Your task to perform on an android device: change text size in settings app Image 0: 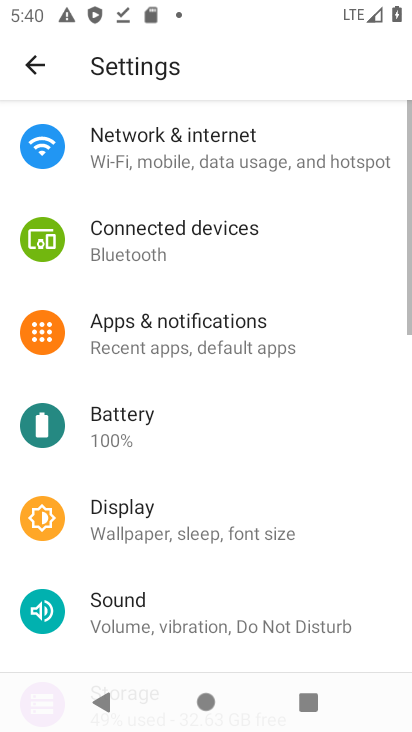
Step 0: drag from (209, 598) to (204, 230)
Your task to perform on an android device: change text size in settings app Image 1: 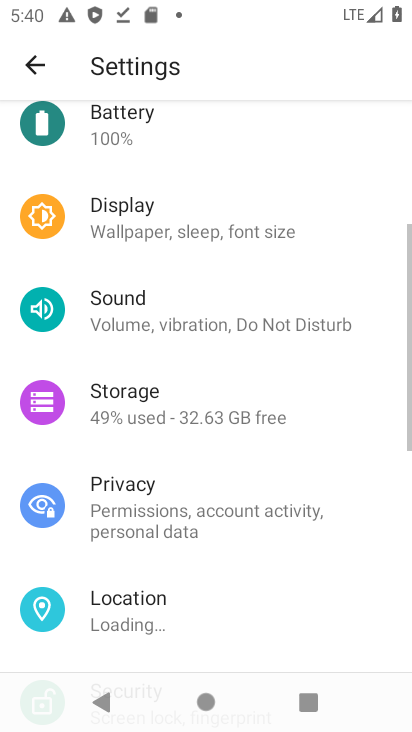
Step 1: drag from (252, 237) to (296, 728)
Your task to perform on an android device: change text size in settings app Image 2: 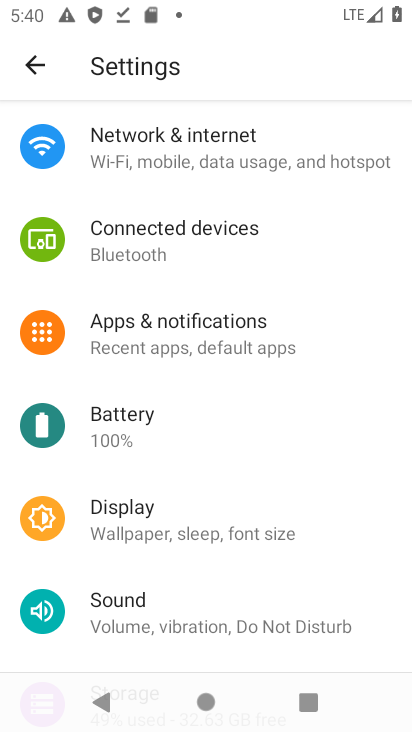
Step 2: click (164, 519)
Your task to perform on an android device: change text size in settings app Image 3: 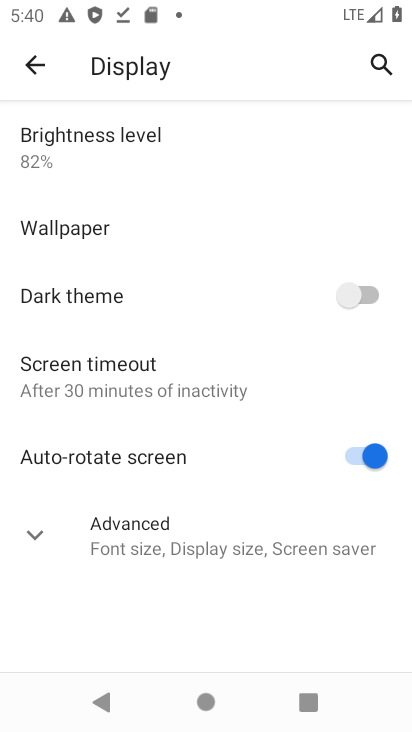
Step 3: drag from (102, 540) to (115, 324)
Your task to perform on an android device: change text size in settings app Image 4: 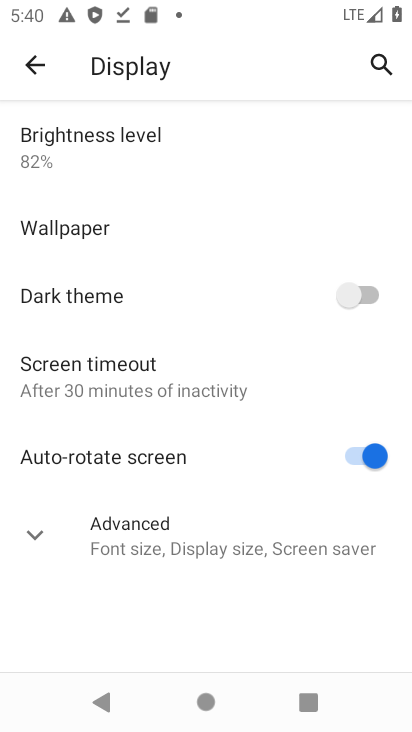
Step 4: click (151, 546)
Your task to perform on an android device: change text size in settings app Image 5: 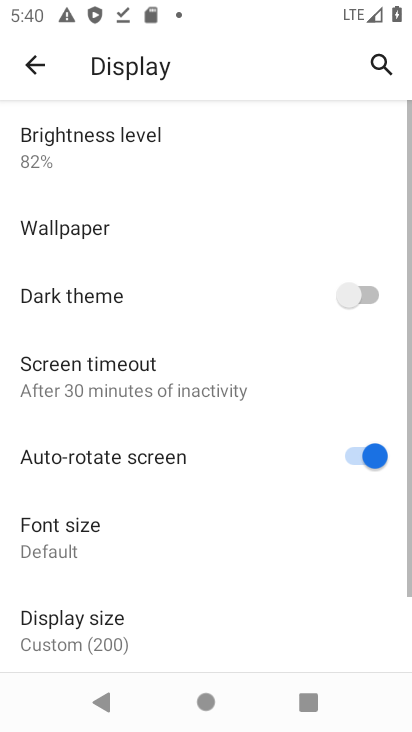
Step 5: drag from (146, 508) to (193, 235)
Your task to perform on an android device: change text size in settings app Image 6: 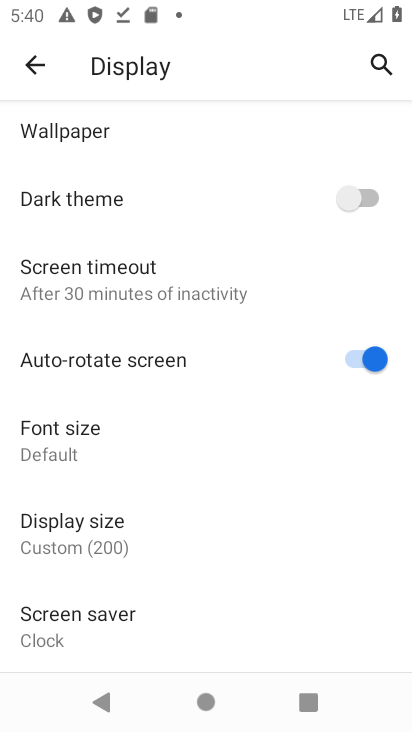
Step 6: click (63, 428)
Your task to perform on an android device: change text size in settings app Image 7: 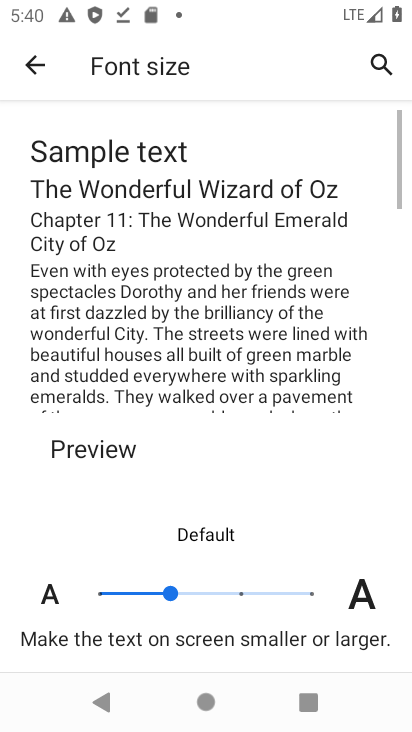
Step 7: drag from (167, 502) to (218, 195)
Your task to perform on an android device: change text size in settings app Image 8: 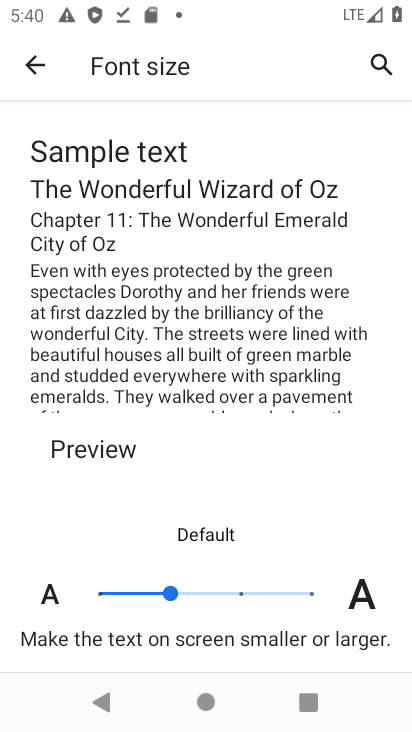
Step 8: click (231, 604)
Your task to perform on an android device: change text size in settings app Image 9: 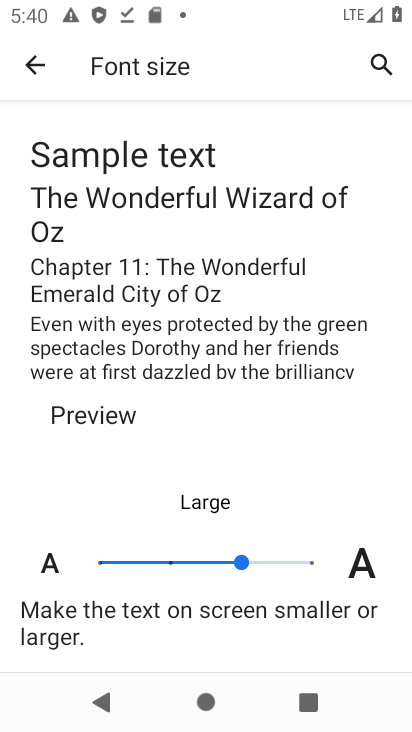
Step 9: task complete